Your task to perform on an android device: check battery use Image 0: 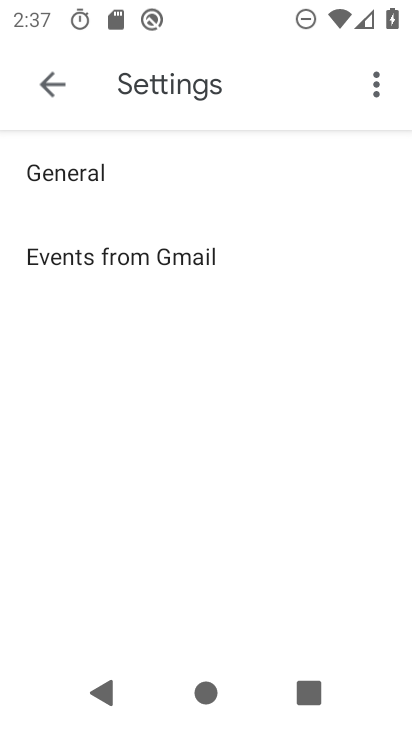
Step 0: press home button
Your task to perform on an android device: check battery use Image 1: 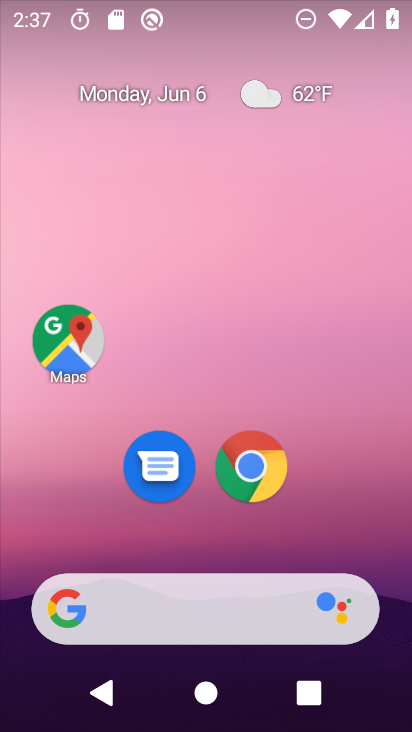
Step 1: drag from (249, 537) to (174, 24)
Your task to perform on an android device: check battery use Image 2: 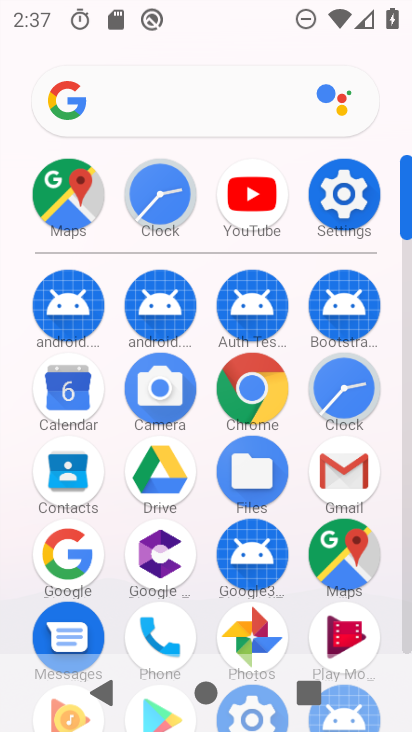
Step 2: click (348, 197)
Your task to perform on an android device: check battery use Image 3: 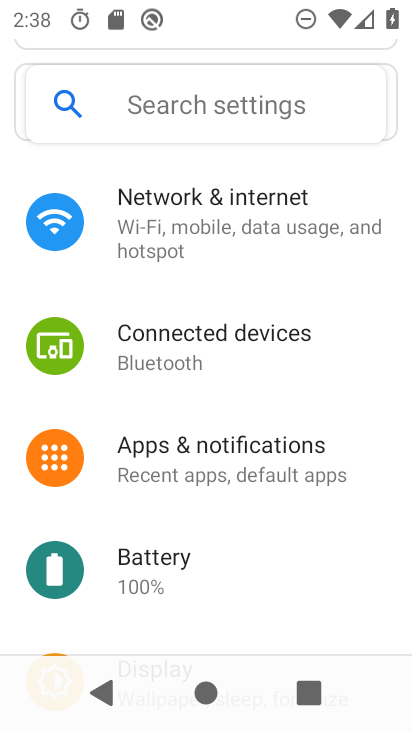
Step 3: click (175, 579)
Your task to perform on an android device: check battery use Image 4: 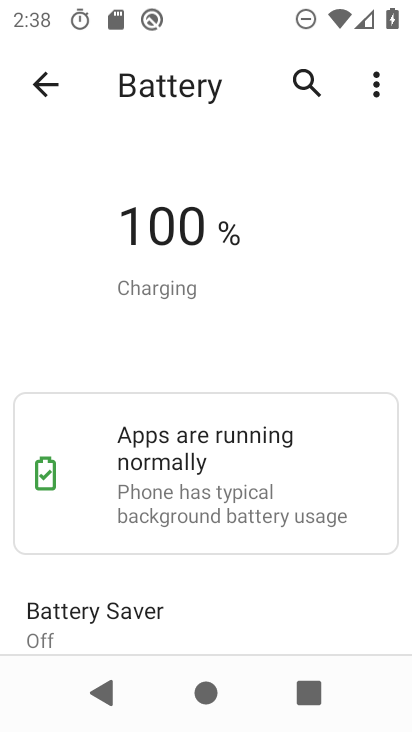
Step 4: task complete